Your task to perform on an android device: Open accessibility settings Image 0: 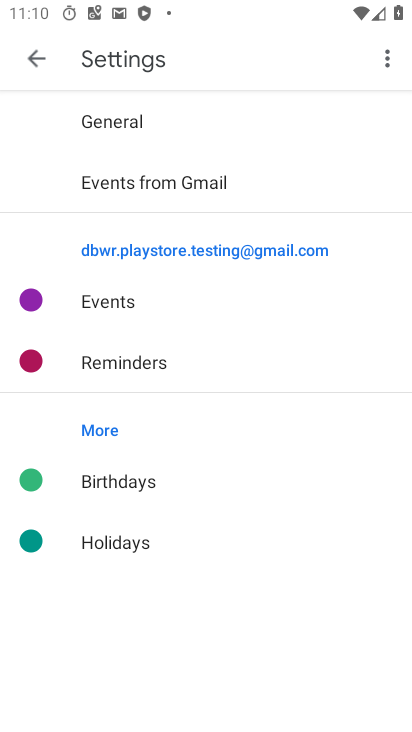
Step 0: press back button
Your task to perform on an android device: Open accessibility settings Image 1: 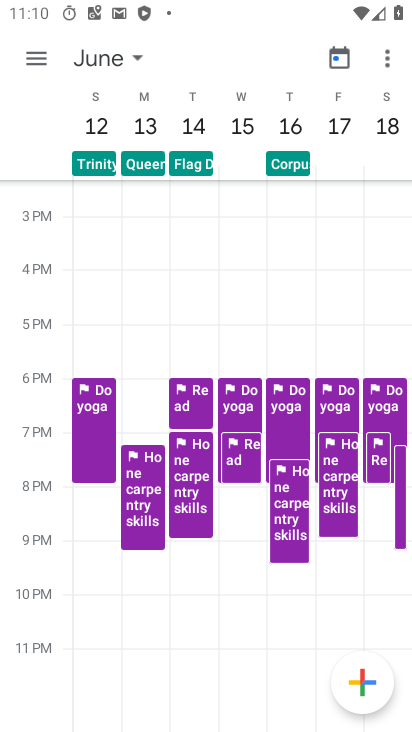
Step 1: press back button
Your task to perform on an android device: Open accessibility settings Image 2: 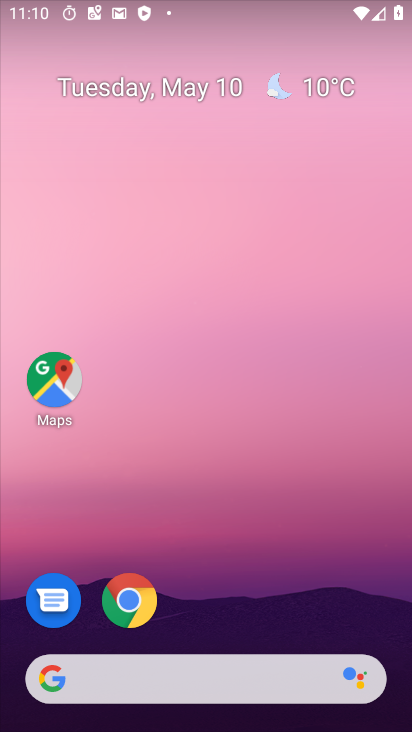
Step 2: drag from (288, 602) to (283, 48)
Your task to perform on an android device: Open accessibility settings Image 3: 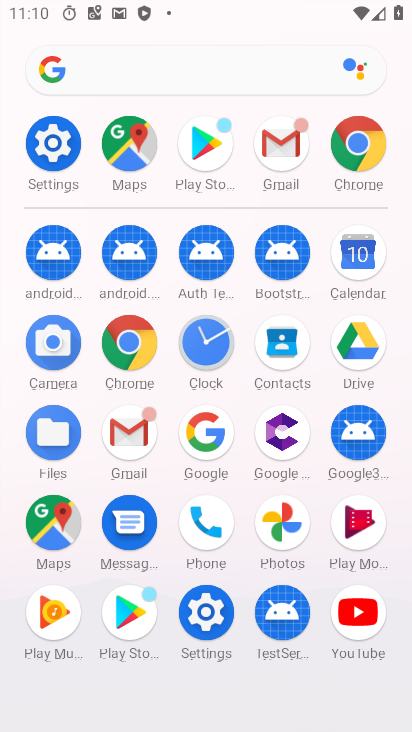
Step 3: click (208, 609)
Your task to perform on an android device: Open accessibility settings Image 4: 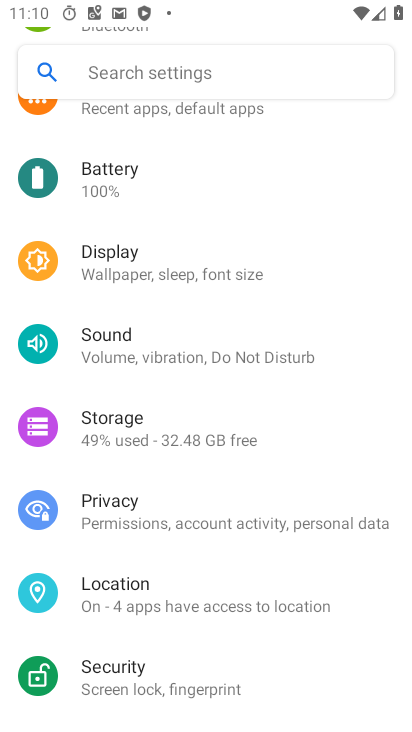
Step 4: drag from (275, 507) to (284, 110)
Your task to perform on an android device: Open accessibility settings Image 5: 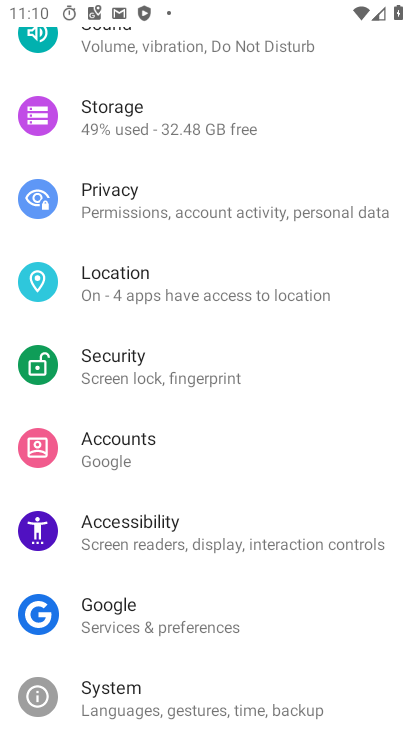
Step 5: drag from (289, 525) to (283, 127)
Your task to perform on an android device: Open accessibility settings Image 6: 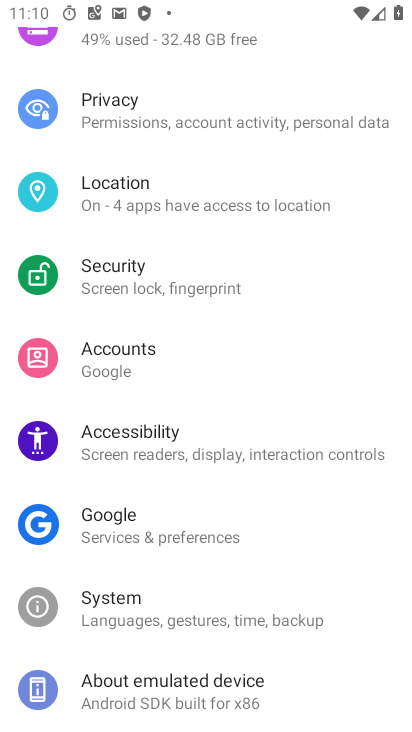
Step 6: drag from (274, 379) to (273, 676)
Your task to perform on an android device: Open accessibility settings Image 7: 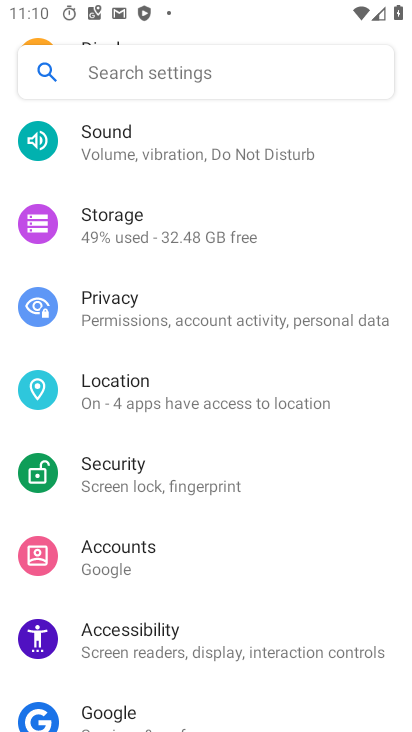
Step 7: drag from (245, 235) to (244, 605)
Your task to perform on an android device: Open accessibility settings Image 8: 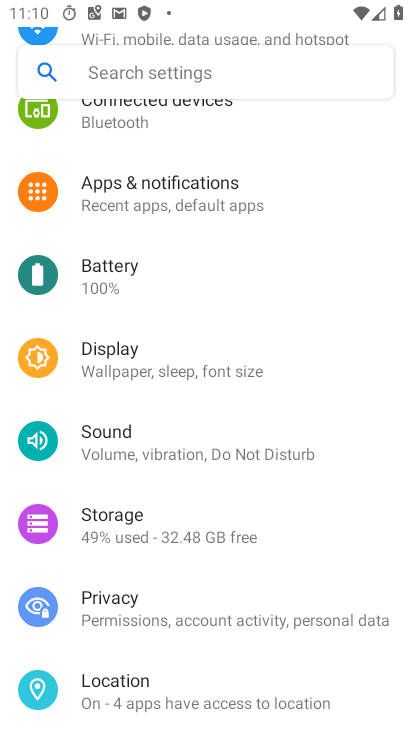
Step 8: drag from (247, 231) to (244, 555)
Your task to perform on an android device: Open accessibility settings Image 9: 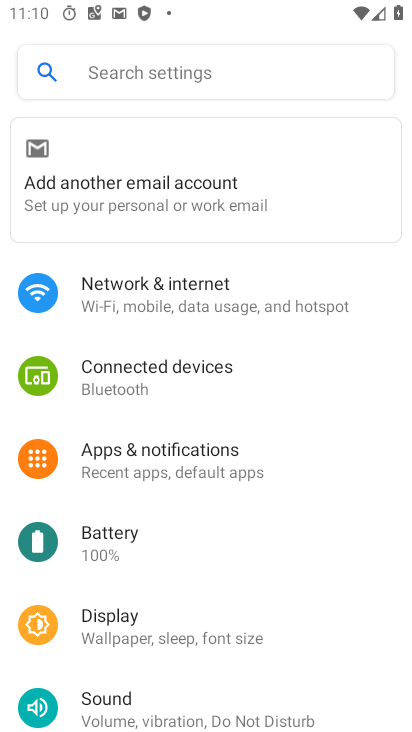
Step 9: drag from (253, 579) to (301, 276)
Your task to perform on an android device: Open accessibility settings Image 10: 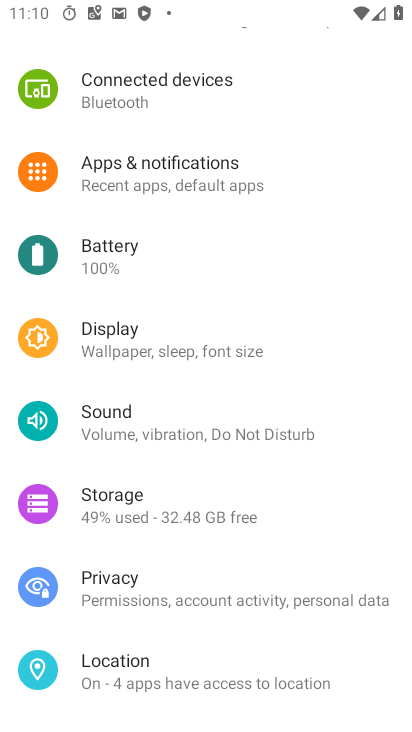
Step 10: drag from (241, 558) to (233, 236)
Your task to perform on an android device: Open accessibility settings Image 11: 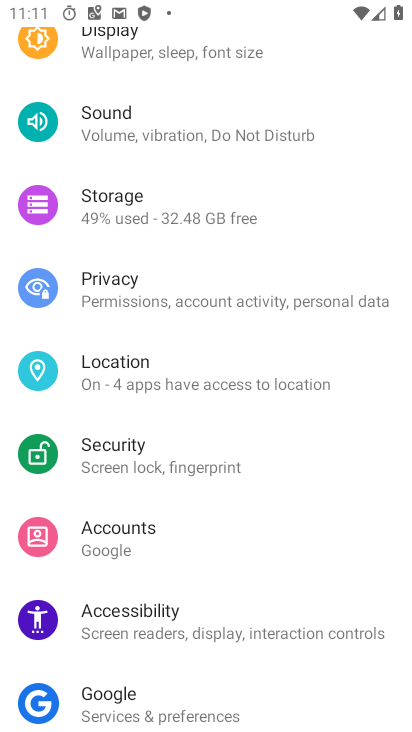
Step 11: drag from (253, 556) to (273, 164)
Your task to perform on an android device: Open accessibility settings Image 12: 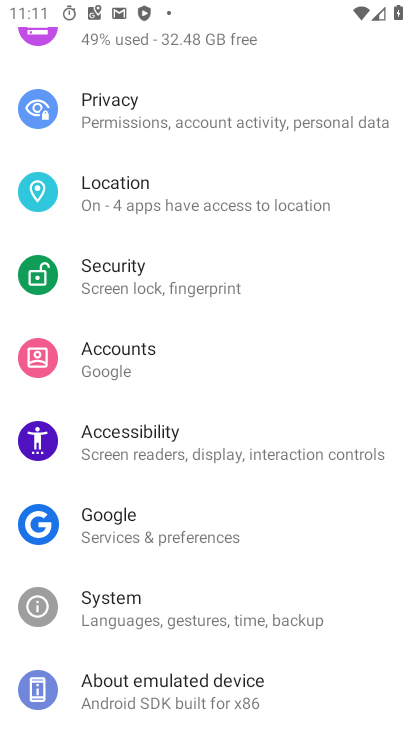
Step 12: click (163, 425)
Your task to perform on an android device: Open accessibility settings Image 13: 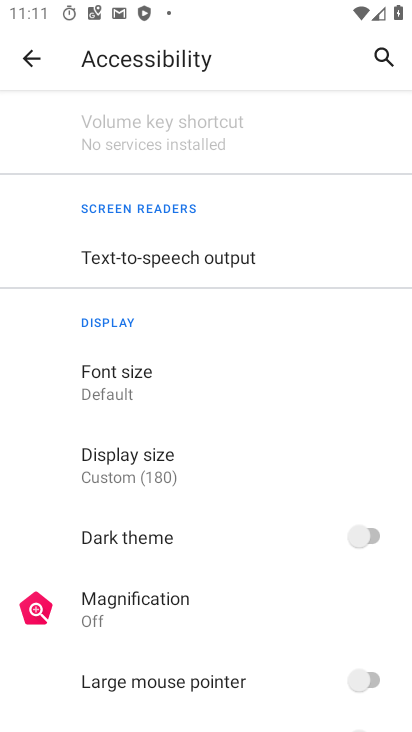
Step 13: task complete